Your task to perform on an android device: turn on data saver in the chrome app Image 0: 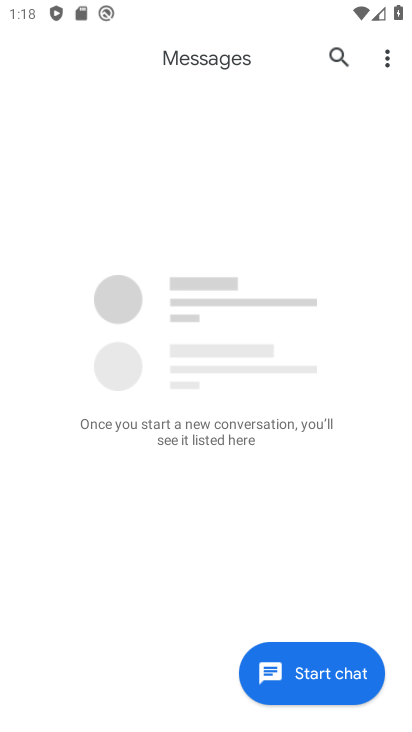
Step 0: press back button
Your task to perform on an android device: turn on data saver in the chrome app Image 1: 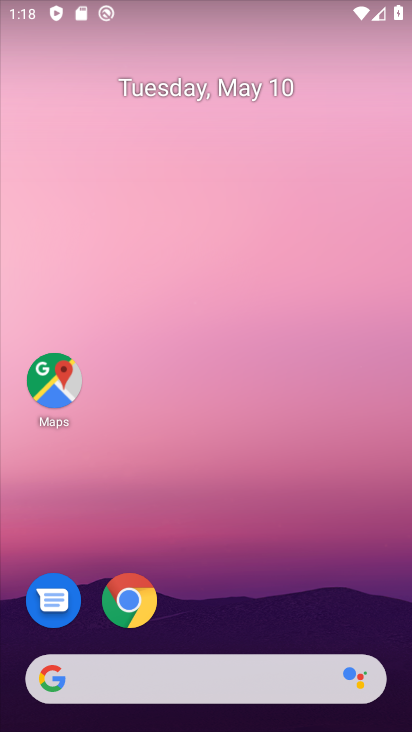
Step 1: drag from (207, 640) to (149, 37)
Your task to perform on an android device: turn on data saver in the chrome app Image 2: 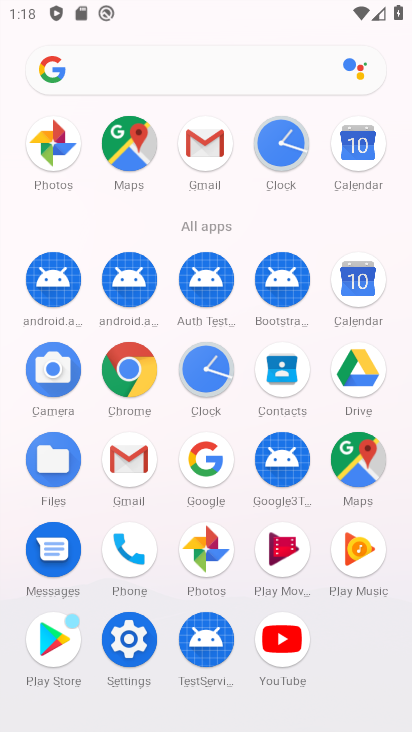
Step 2: click (116, 372)
Your task to perform on an android device: turn on data saver in the chrome app Image 3: 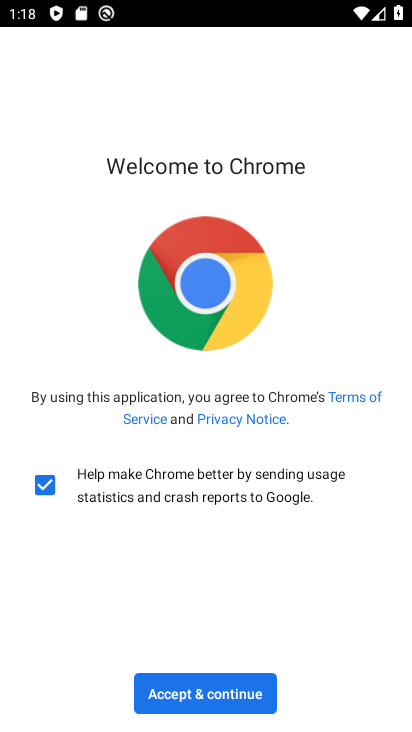
Step 3: click (233, 699)
Your task to perform on an android device: turn on data saver in the chrome app Image 4: 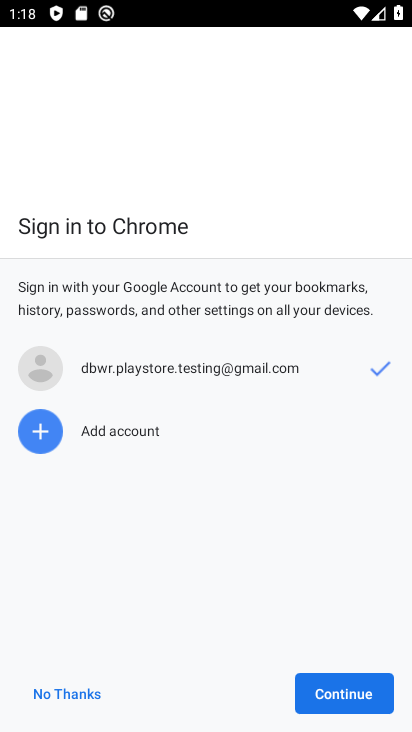
Step 4: click (313, 684)
Your task to perform on an android device: turn on data saver in the chrome app Image 5: 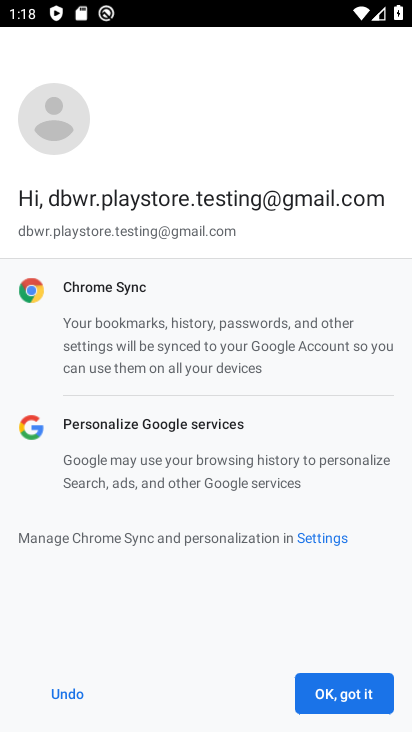
Step 5: click (374, 697)
Your task to perform on an android device: turn on data saver in the chrome app Image 6: 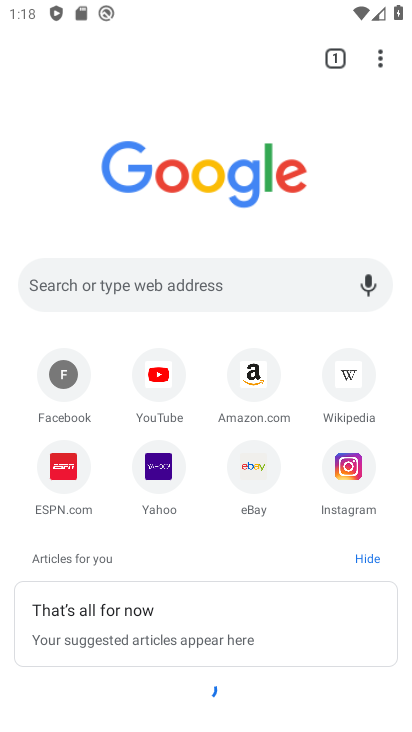
Step 6: click (377, 57)
Your task to perform on an android device: turn on data saver in the chrome app Image 7: 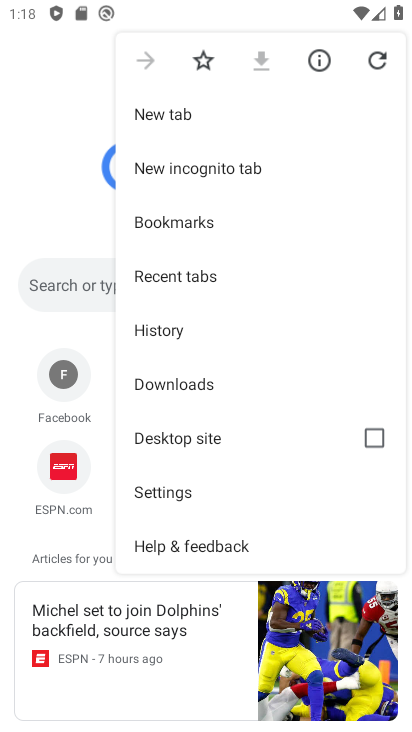
Step 7: click (206, 487)
Your task to perform on an android device: turn on data saver in the chrome app Image 8: 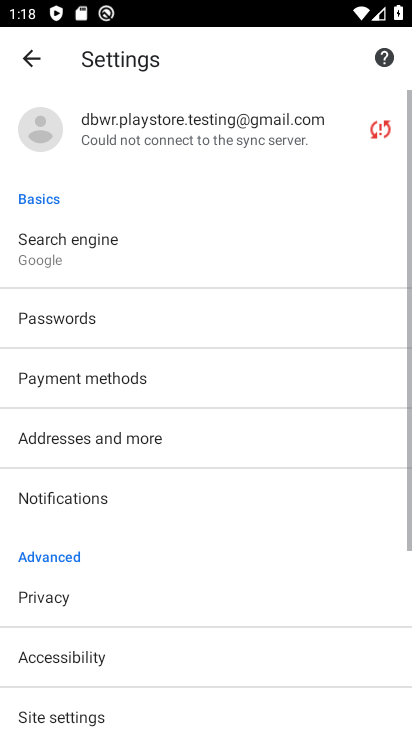
Step 8: drag from (179, 619) to (101, 179)
Your task to perform on an android device: turn on data saver in the chrome app Image 9: 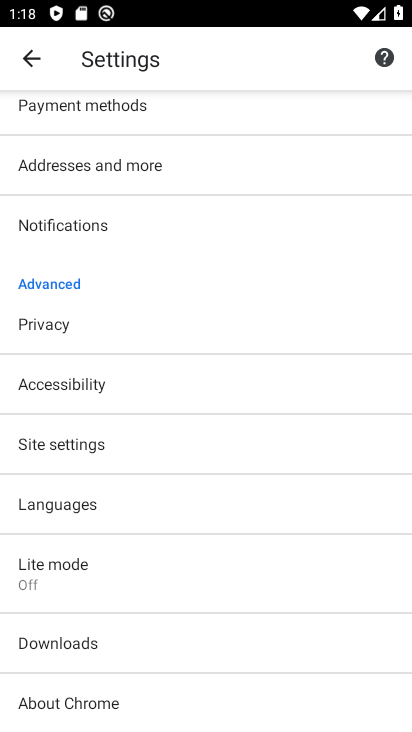
Step 9: click (80, 553)
Your task to perform on an android device: turn on data saver in the chrome app Image 10: 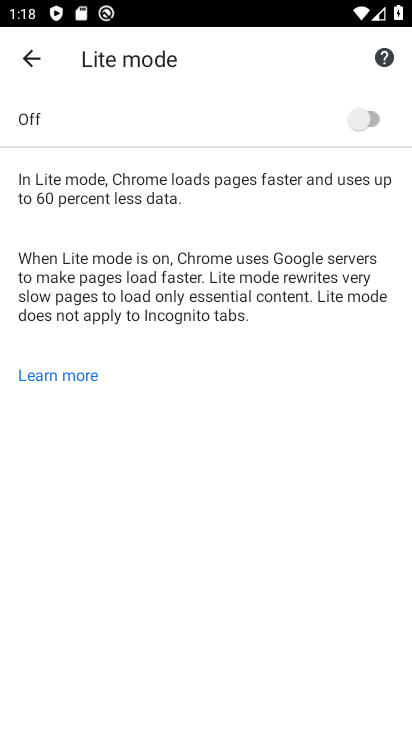
Step 10: click (358, 119)
Your task to perform on an android device: turn on data saver in the chrome app Image 11: 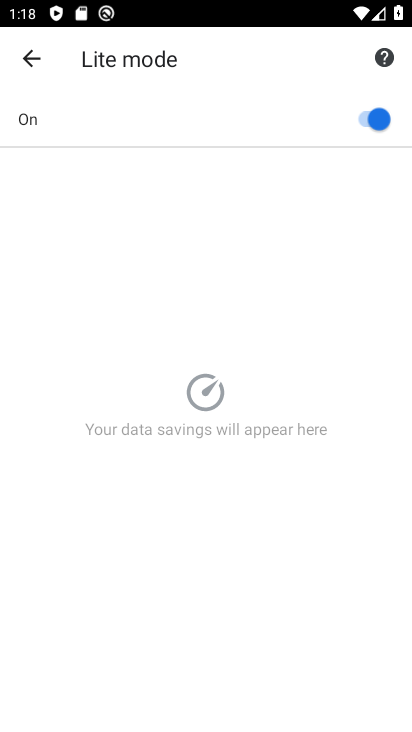
Step 11: task complete